Your task to perform on an android device: turn notification dots on Image 0: 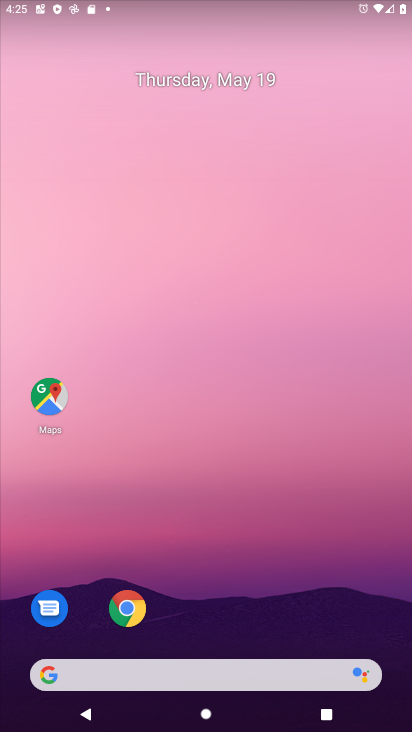
Step 0: drag from (250, 612) to (255, 104)
Your task to perform on an android device: turn notification dots on Image 1: 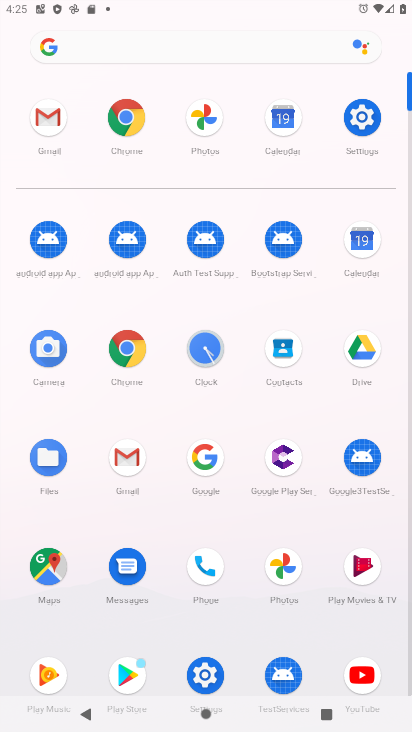
Step 1: click (377, 122)
Your task to perform on an android device: turn notification dots on Image 2: 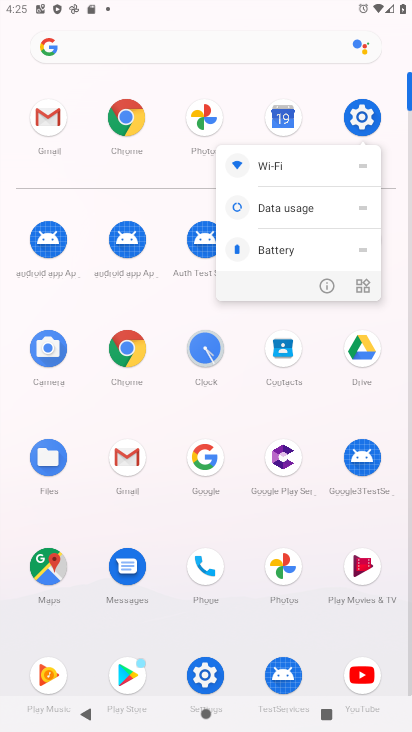
Step 2: click (363, 119)
Your task to perform on an android device: turn notification dots on Image 3: 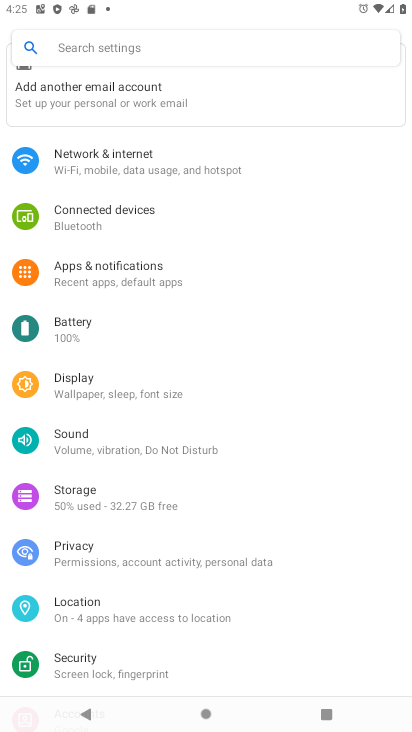
Step 3: click (141, 275)
Your task to perform on an android device: turn notification dots on Image 4: 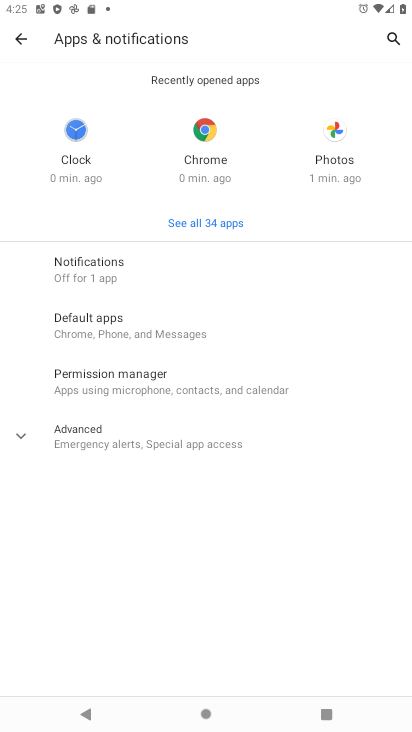
Step 4: click (177, 296)
Your task to perform on an android device: turn notification dots on Image 5: 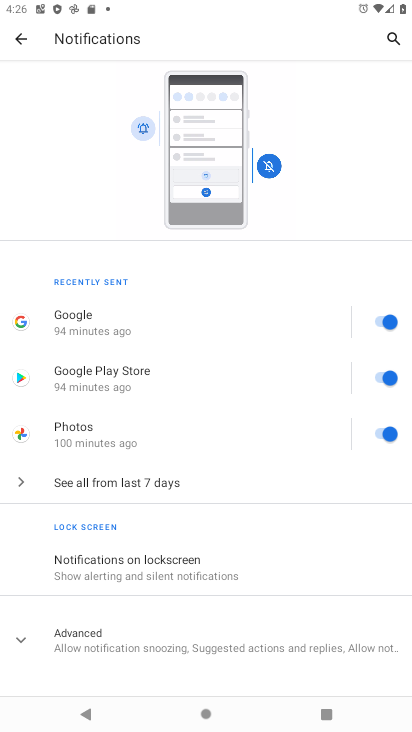
Step 5: click (136, 623)
Your task to perform on an android device: turn notification dots on Image 6: 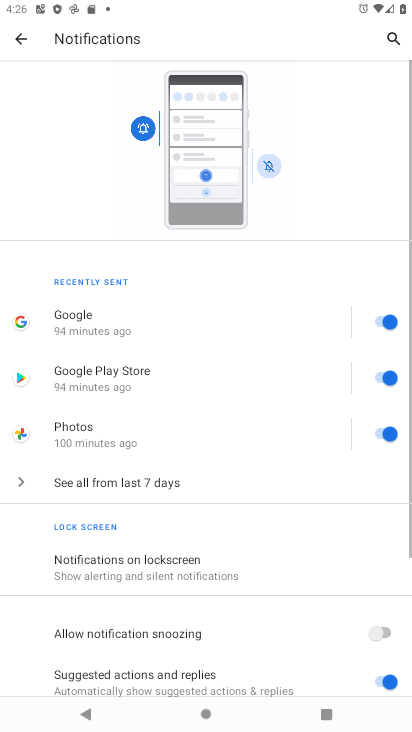
Step 6: task complete